Your task to perform on an android device: Search for Mexican restaurants on Maps Image 0: 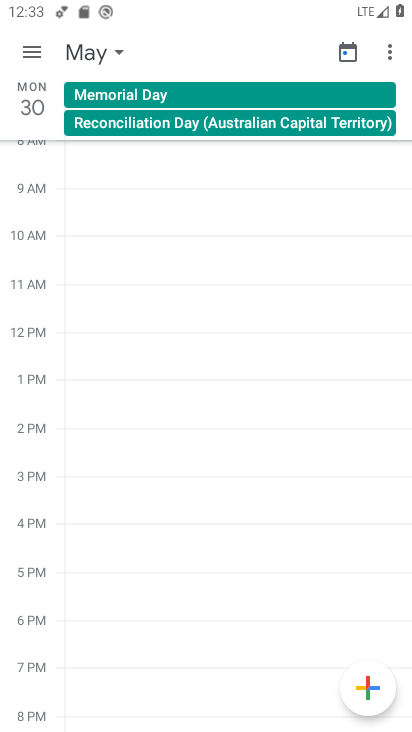
Step 0: press home button
Your task to perform on an android device: Search for Mexican restaurants on Maps Image 1: 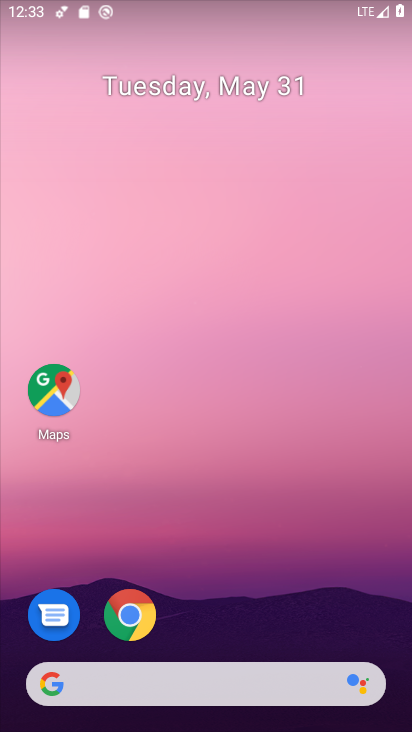
Step 1: click (62, 399)
Your task to perform on an android device: Search for Mexican restaurants on Maps Image 2: 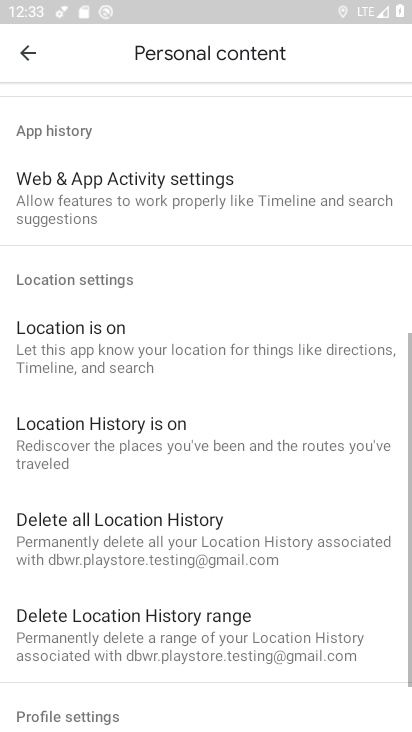
Step 2: click (30, 44)
Your task to perform on an android device: Search for Mexican restaurants on Maps Image 3: 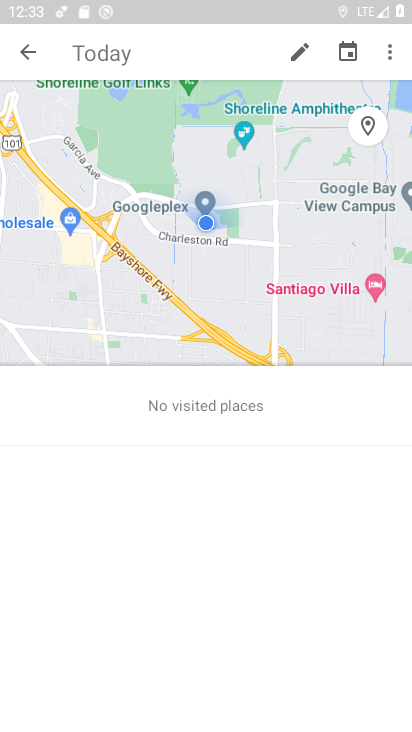
Step 3: click (20, 49)
Your task to perform on an android device: Search for Mexican restaurants on Maps Image 4: 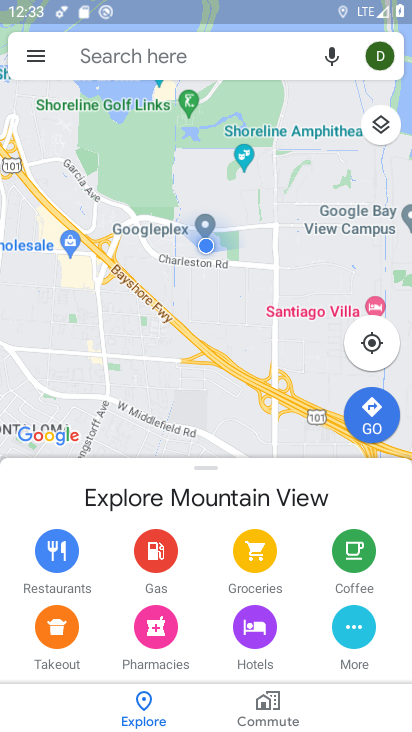
Step 4: click (196, 66)
Your task to perform on an android device: Search for Mexican restaurants on Maps Image 5: 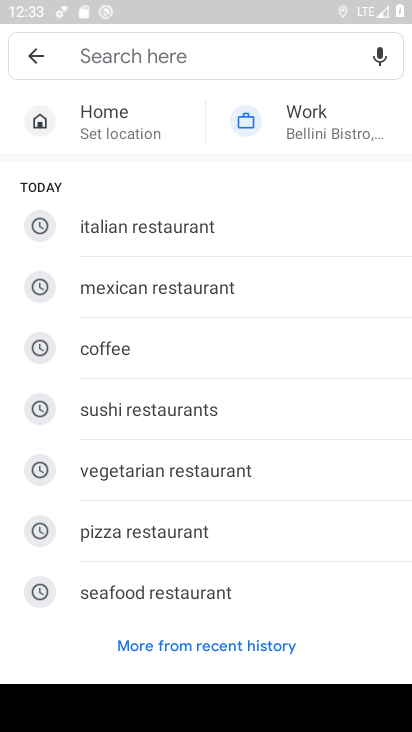
Step 5: type "Mexican restaurants"
Your task to perform on an android device: Search for Mexican restaurants on Maps Image 6: 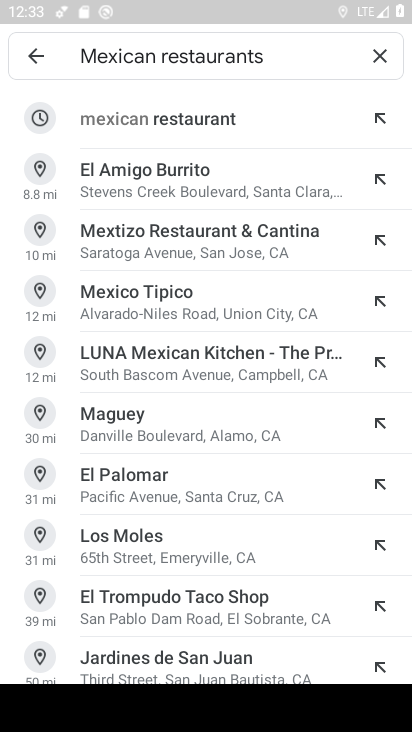
Step 6: click (213, 129)
Your task to perform on an android device: Search for Mexican restaurants on Maps Image 7: 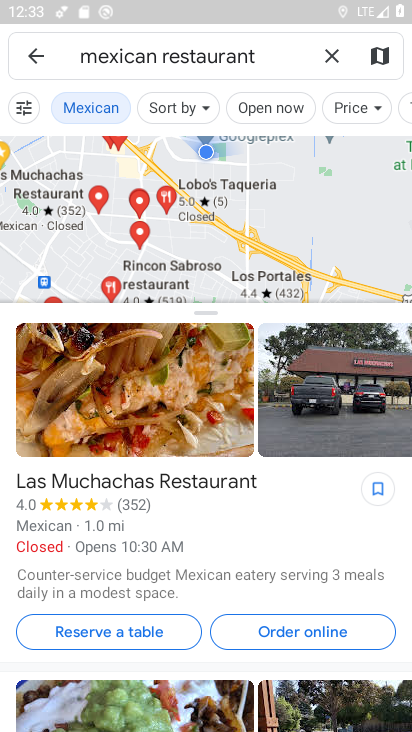
Step 7: task complete